Your task to perform on an android device: check the backup settings in the google photos Image 0: 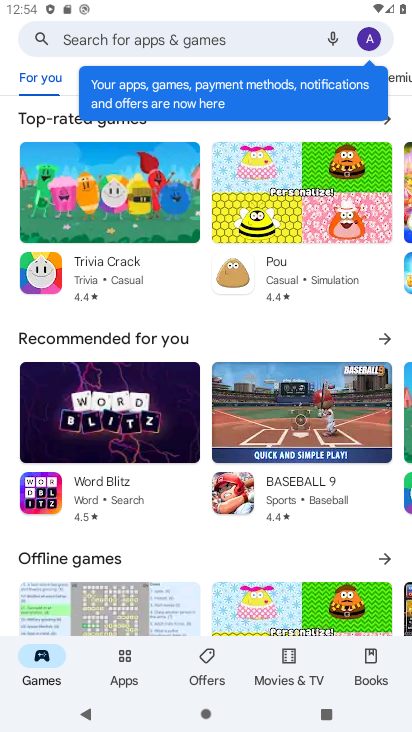
Step 0: press home button
Your task to perform on an android device: check the backup settings in the google photos Image 1: 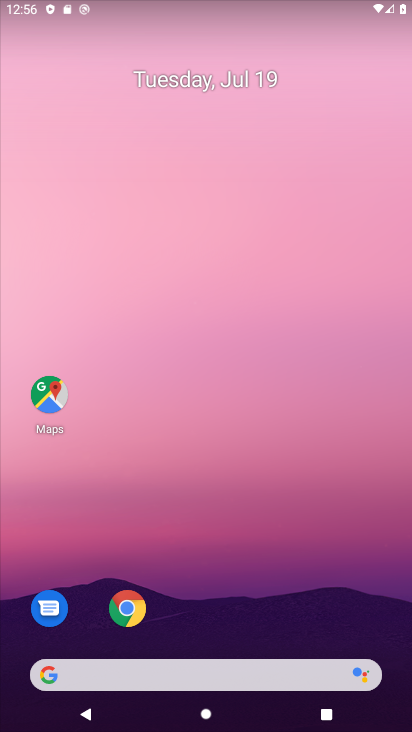
Step 1: drag from (238, 579) to (207, 196)
Your task to perform on an android device: check the backup settings in the google photos Image 2: 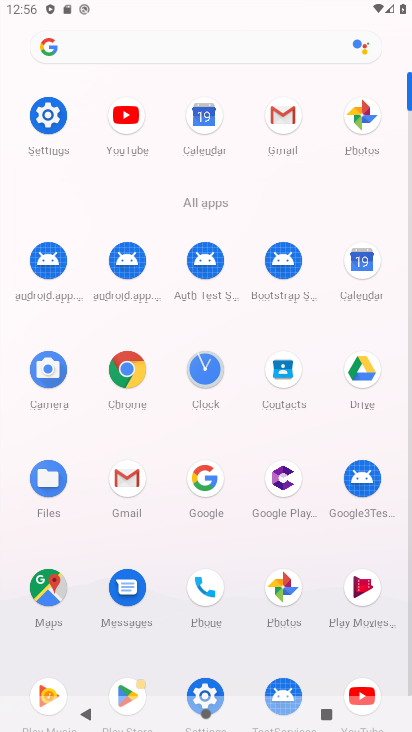
Step 2: click (358, 112)
Your task to perform on an android device: check the backup settings in the google photos Image 3: 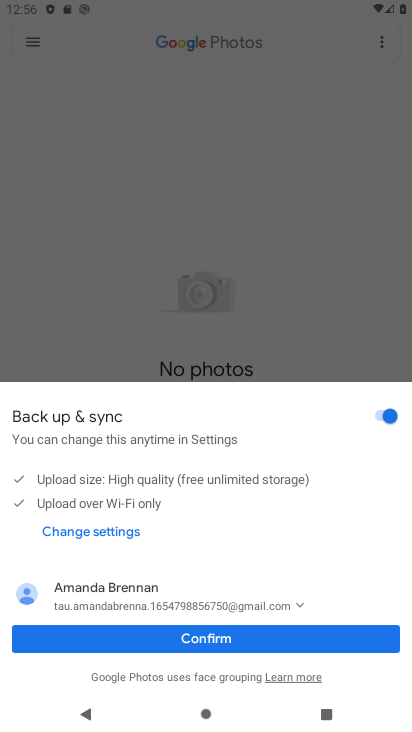
Step 3: task complete